Your task to perform on an android device: add a label to a message in the gmail app Image 0: 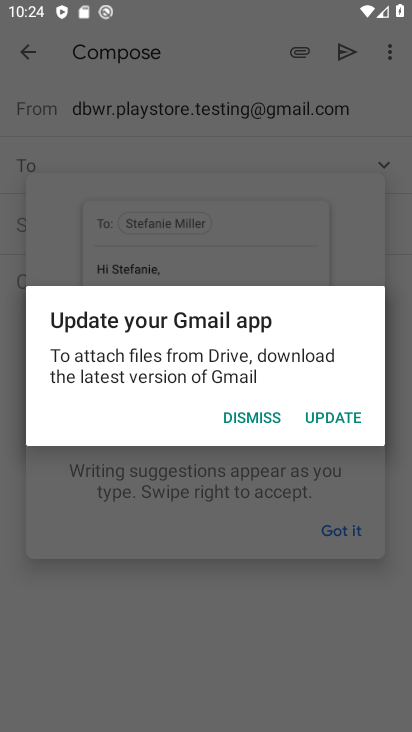
Step 0: task complete